Your task to perform on an android device: Play the last video I watched on Youtube Image 0: 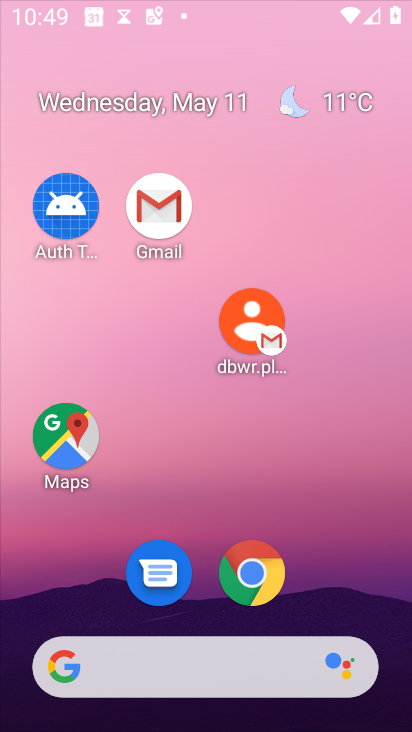
Step 0: drag from (393, 662) to (147, 183)
Your task to perform on an android device: Play the last video I watched on Youtube Image 1: 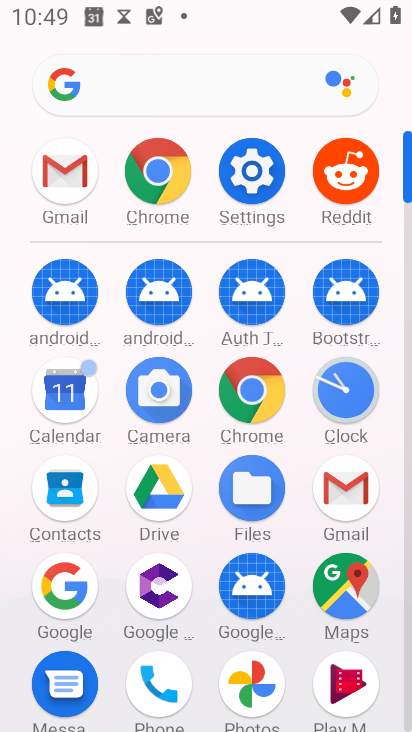
Step 1: drag from (271, 605) to (234, 129)
Your task to perform on an android device: Play the last video I watched on Youtube Image 2: 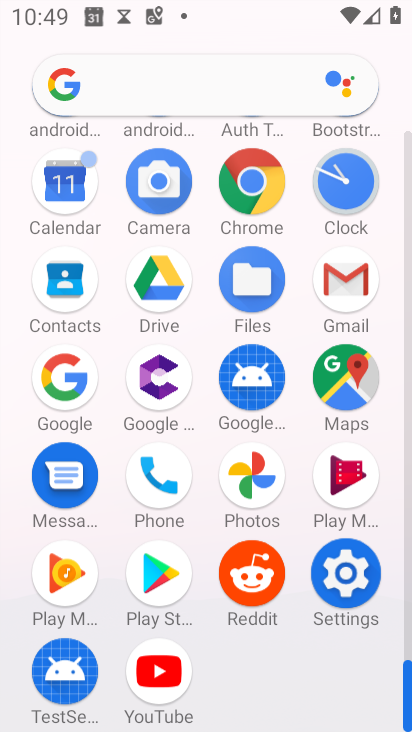
Step 2: drag from (302, 504) to (275, 103)
Your task to perform on an android device: Play the last video I watched on Youtube Image 3: 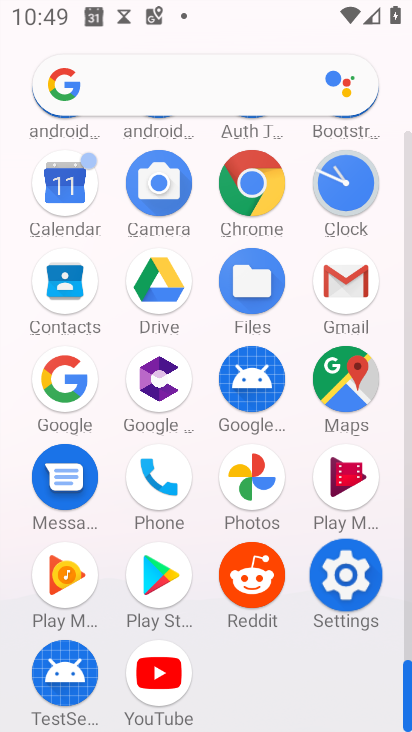
Step 3: click (167, 675)
Your task to perform on an android device: Play the last video I watched on Youtube Image 4: 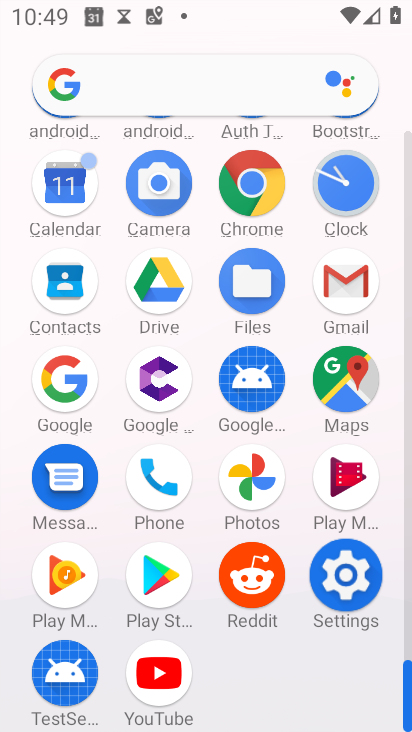
Step 4: click (167, 675)
Your task to perform on an android device: Play the last video I watched on Youtube Image 5: 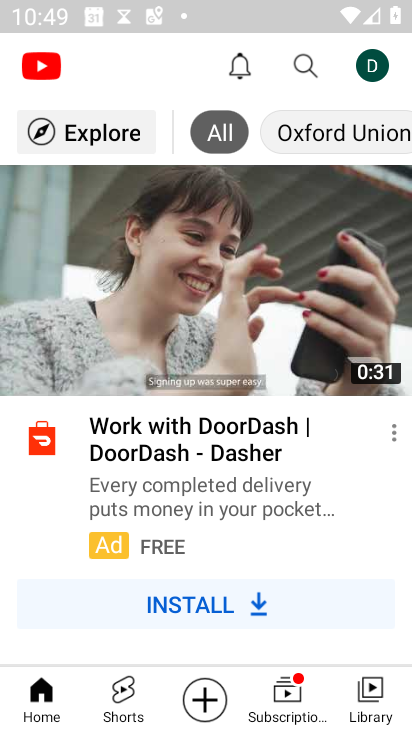
Step 5: click (199, 314)
Your task to perform on an android device: Play the last video I watched on Youtube Image 6: 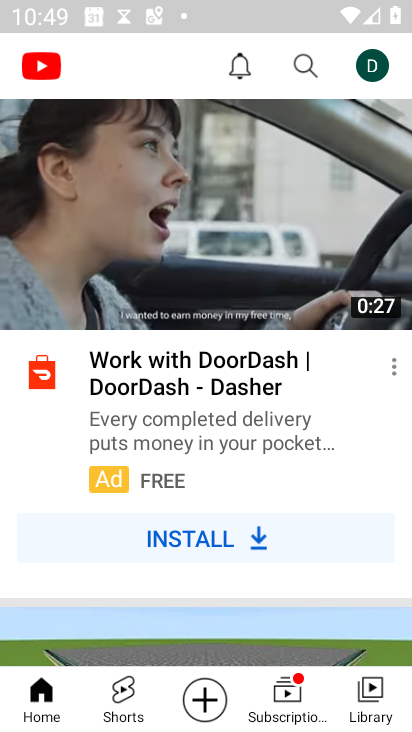
Step 6: click (163, 250)
Your task to perform on an android device: Play the last video I watched on Youtube Image 7: 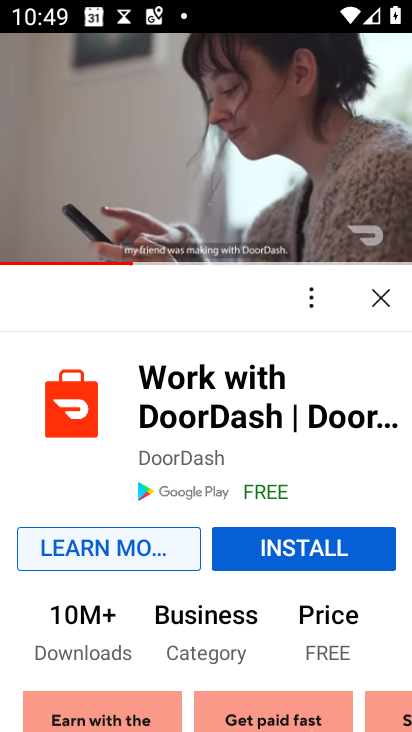
Step 7: click (376, 297)
Your task to perform on an android device: Play the last video I watched on Youtube Image 8: 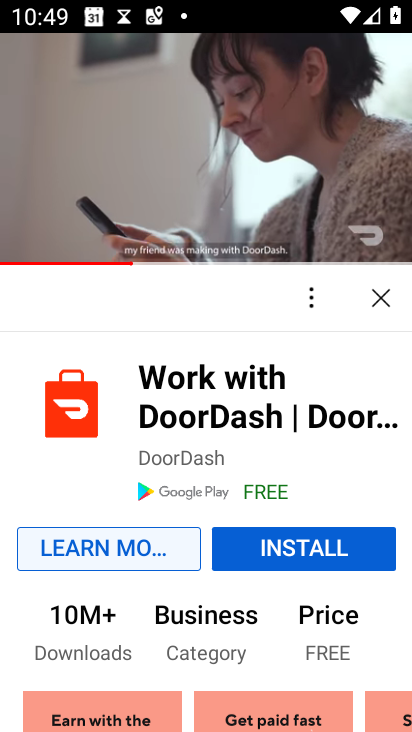
Step 8: click (376, 297)
Your task to perform on an android device: Play the last video I watched on Youtube Image 9: 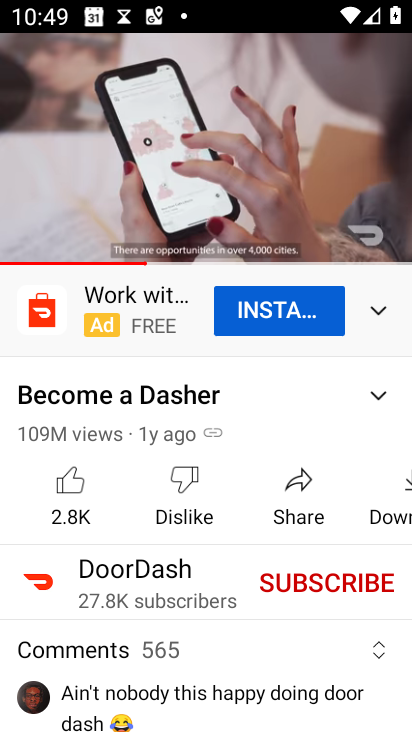
Step 9: click (376, 297)
Your task to perform on an android device: Play the last video I watched on Youtube Image 10: 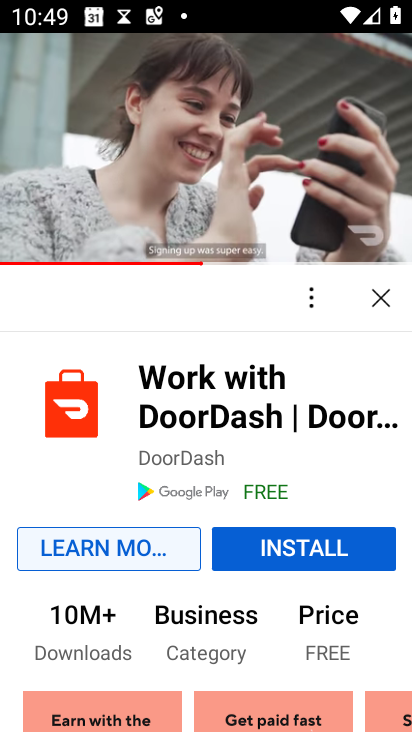
Step 10: task complete